Your task to perform on an android device: Open Youtube and go to "Your channel" Image 0: 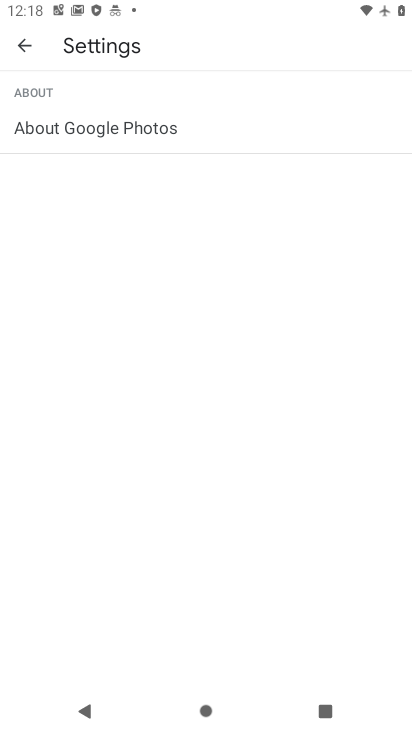
Step 0: press home button
Your task to perform on an android device: Open Youtube and go to "Your channel" Image 1: 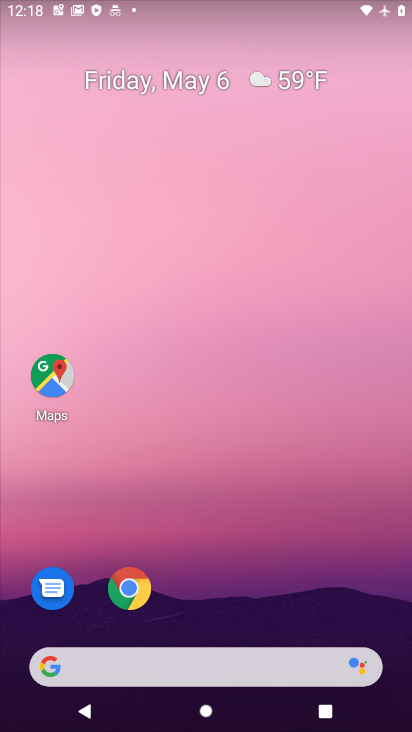
Step 1: drag from (178, 685) to (404, 304)
Your task to perform on an android device: Open Youtube and go to "Your channel" Image 2: 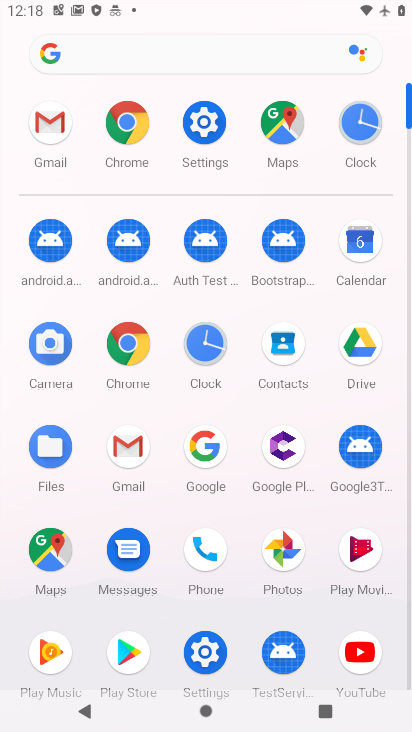
Step 2: click (369, 652)
Your task to perform on an android device: Open Youtube and go to "Your channel" Image 3: 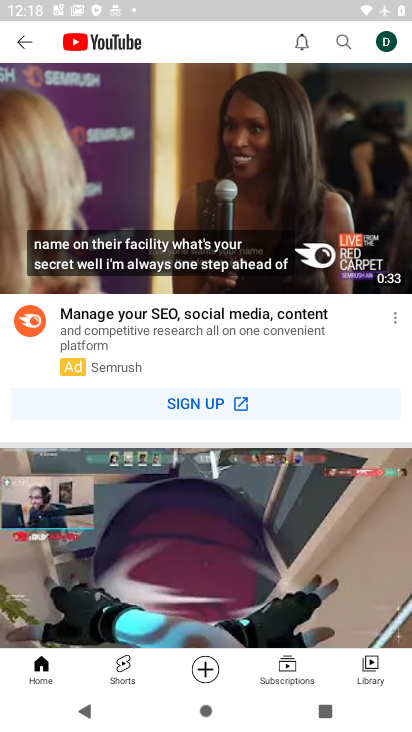
Step 3: click (384, 42)
Your task to perform on an android device: Open Youtube and go to "Your channel" Image 4: 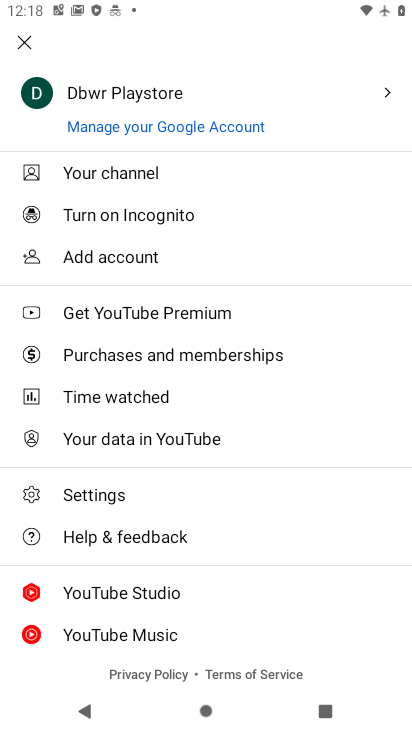
Step 4: click (143, 170)
Your task to perform on an android device: Open Youtube and go to "Your channel" Image 5: 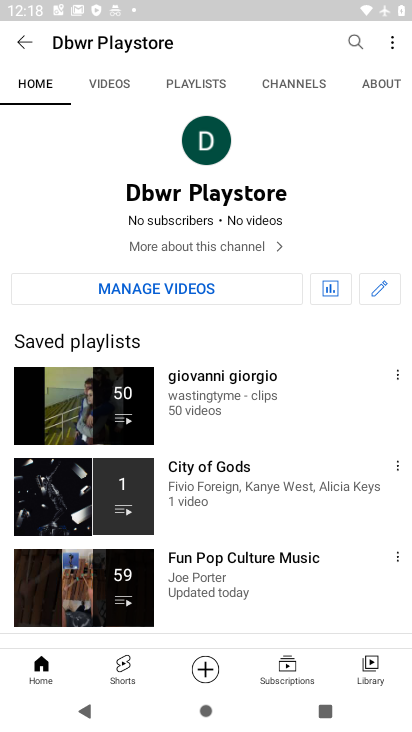
Step 5: task complete